Your task to perform on an android device: Go to Android settings Image 0: 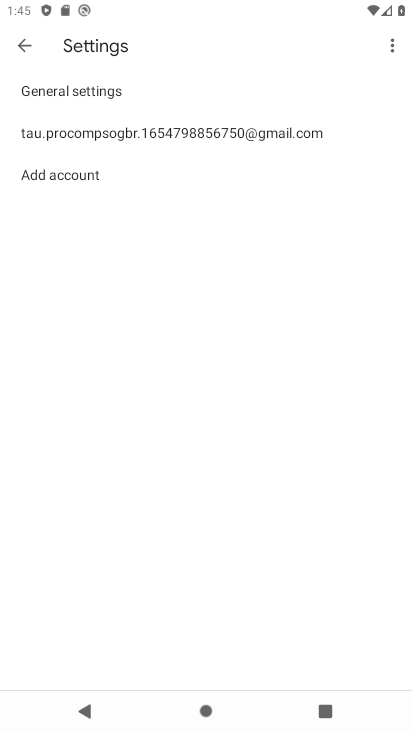
Step 0: drag from (222, 8) to (238, 496)
Your task to perform on an android device: Go to Android settings Image 1: 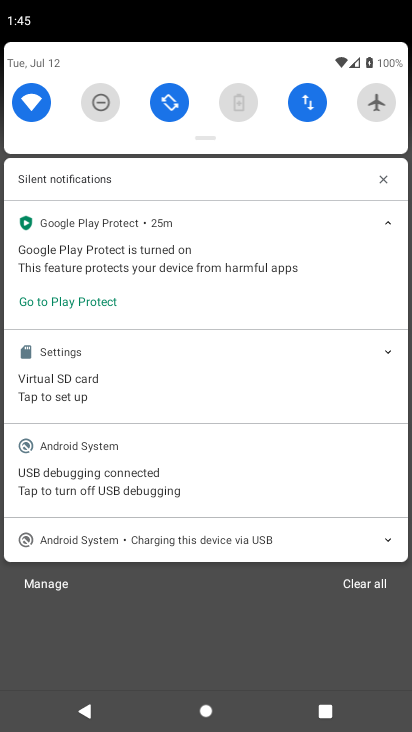
Step 1: drag from (213, 66) to (210, 498)
Your task to perform on an android device: Go to Android settings Image 2: 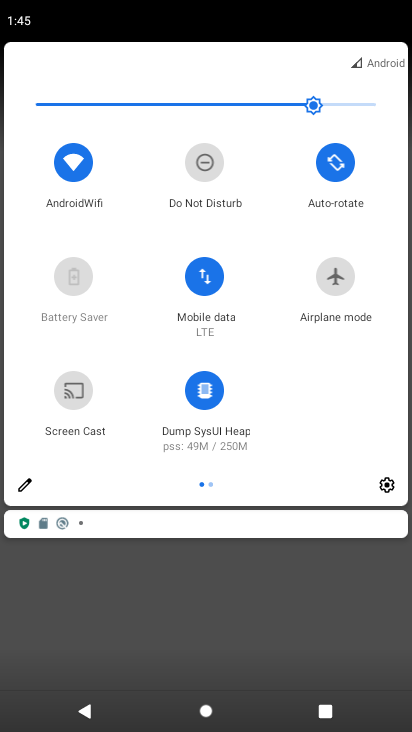
Step 2: click (383, 489)
Your task to perform on an android device: Go to Android settings Image 3: 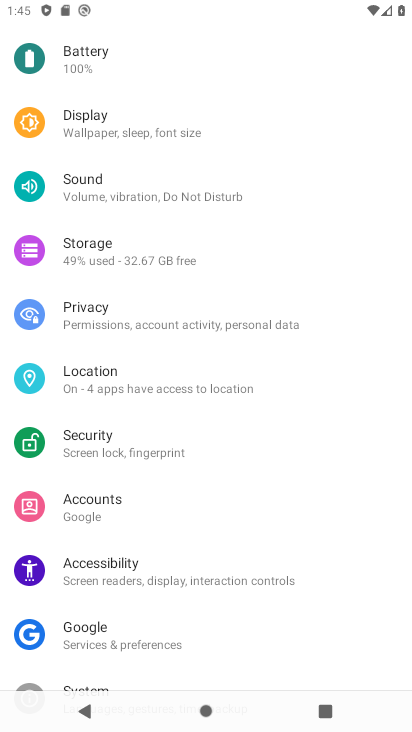
Step 3: drag from (118, 638) to (114, 74)
Your task to perform on an android device: Go to Android settings Image 4: 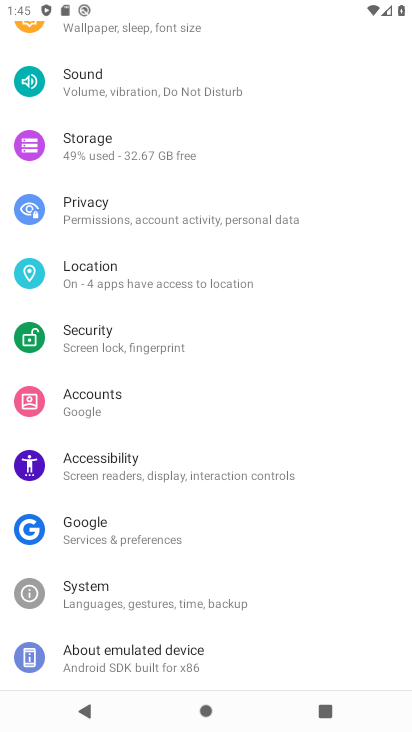
Step 4: drag from (120, 667) to (105, 373)
Your task to perform on an android device: Go to Android settings Image 5: 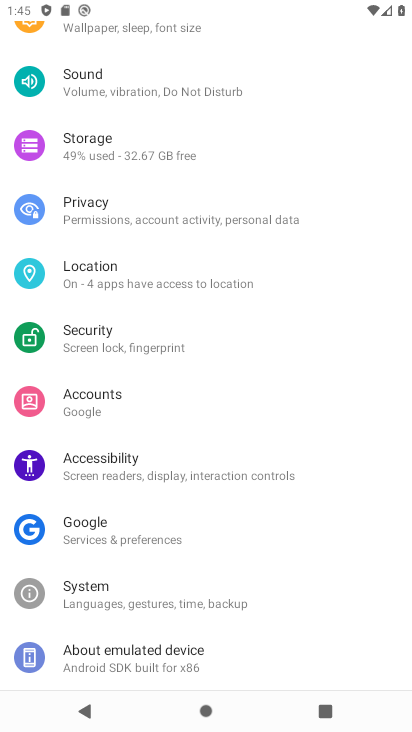
Step 5: drag from (102, 659) to (158, 317)
Your task to perform on an android device: Go to Android settings Image 6: 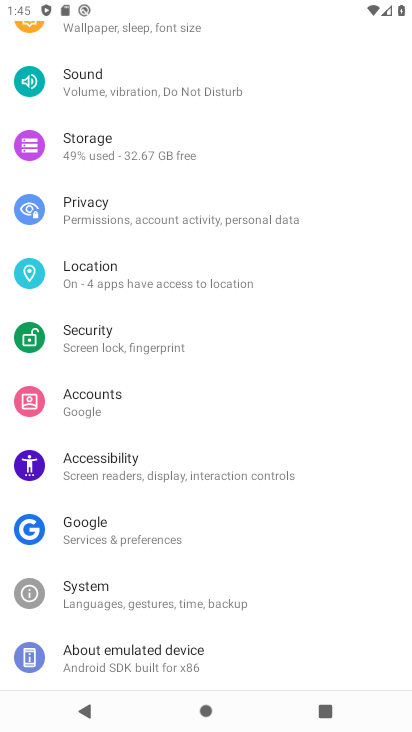
Step 6: click (172, 656)
Your task to perform on an android device: Go to Android settings Image 7: 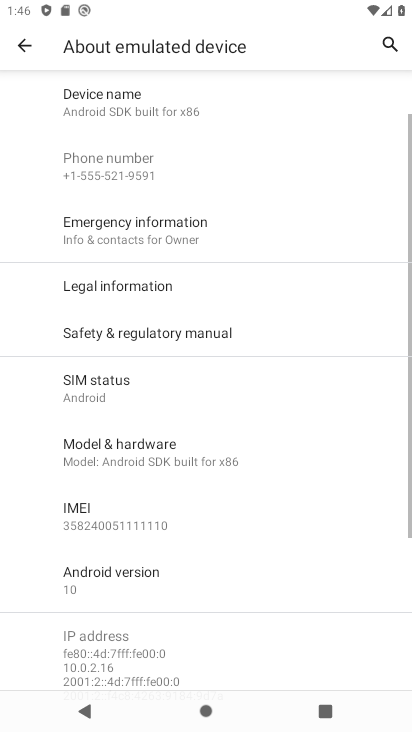
Step 7: click (187, 581)
Your task to perform on an android device: Go to Android settings Image 8: 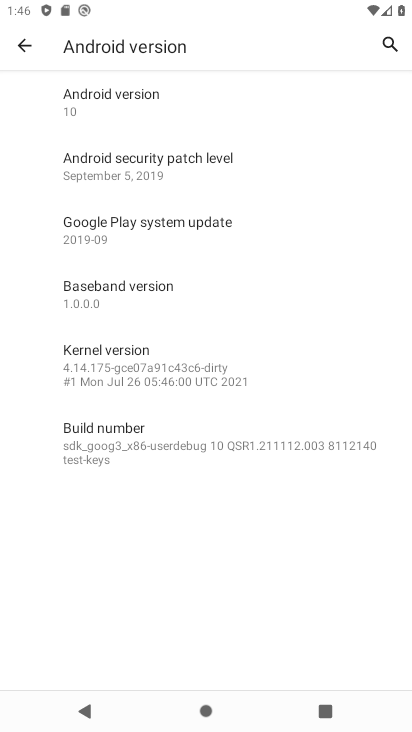
Step 8: task complete